Your task to perform on an android device: Go to network settings Image 0: 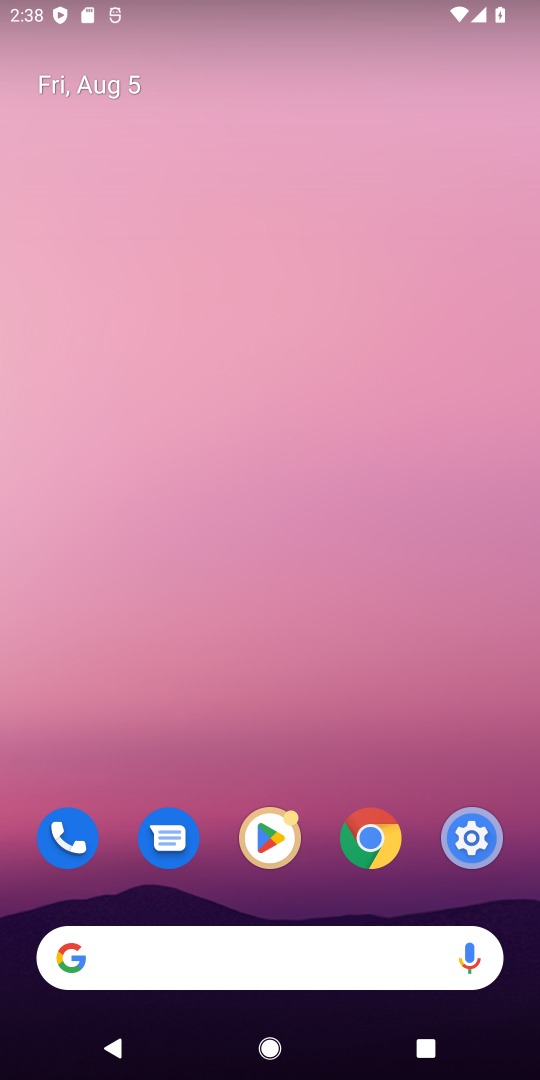
Step 0: drag from (240, 913) to (235, 310)
Your task to perform on an android device: Go to network settings Image 1: 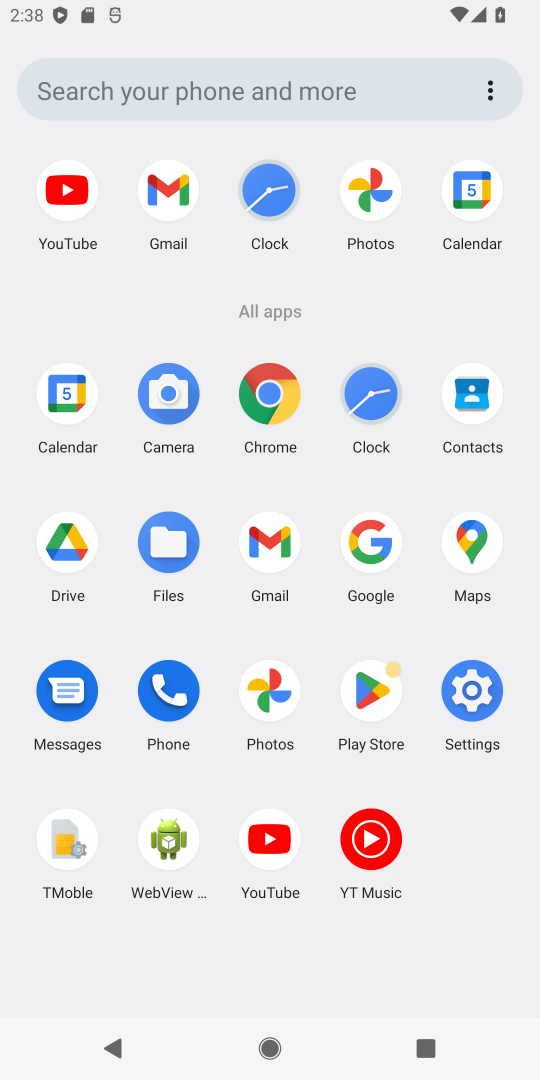
Step 1: click (473, 684)
Your task to perform on an android device: Go to network settings Image 2: 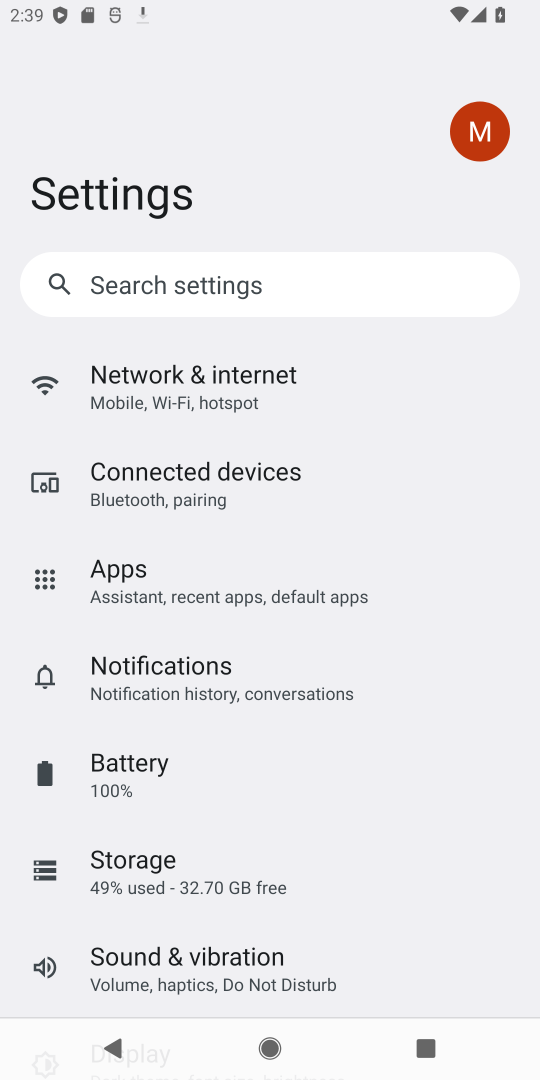
Step 2: click (173, 368)
Your task to perform on an android device: Go to network settings Image 3: 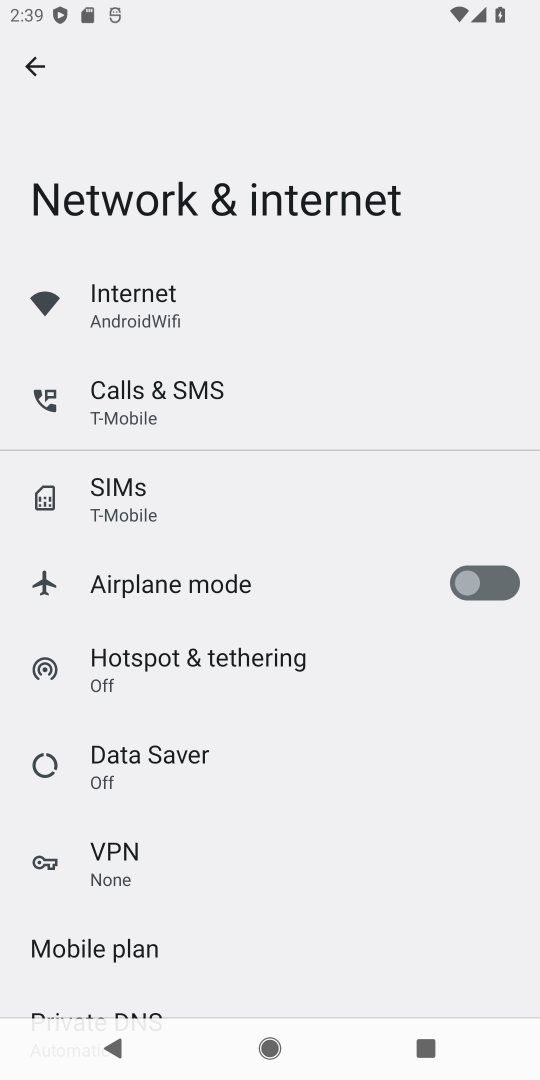
Step 3: task complete